Your task to perform on an android device: toggle data saver in the chrome app Image 0: 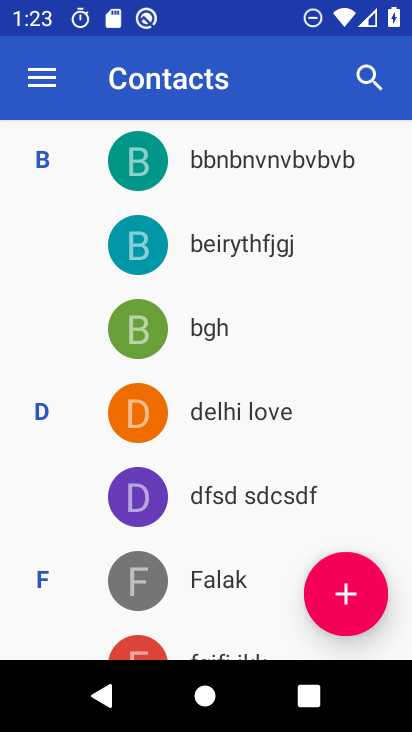
Step 0: press back button
Your task to perform on an android device: toggle data saver in the chrome app Image 1: 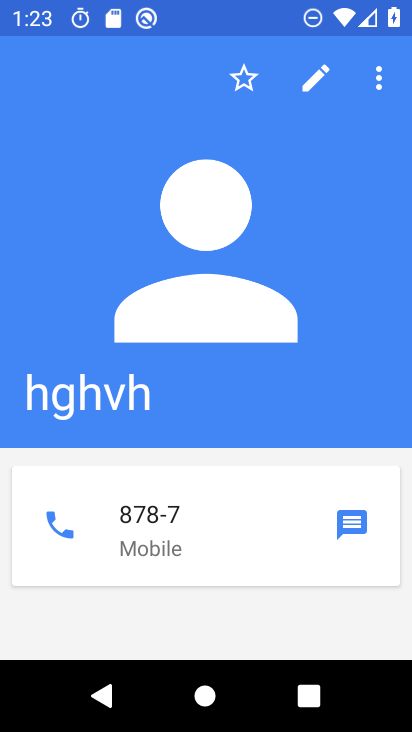
Step 1: press back button
Your task to perform on an android device: toggle data saver in the chrome app Image 2: 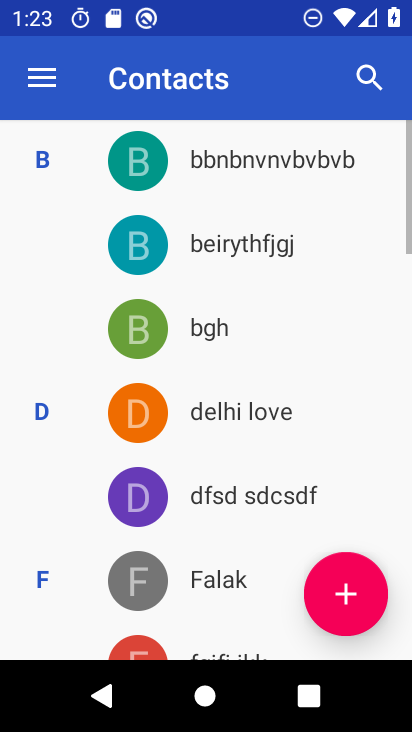
Step 2: press back button
Your task to perform on an android device: toggle data saver in the chrome app Image 3: 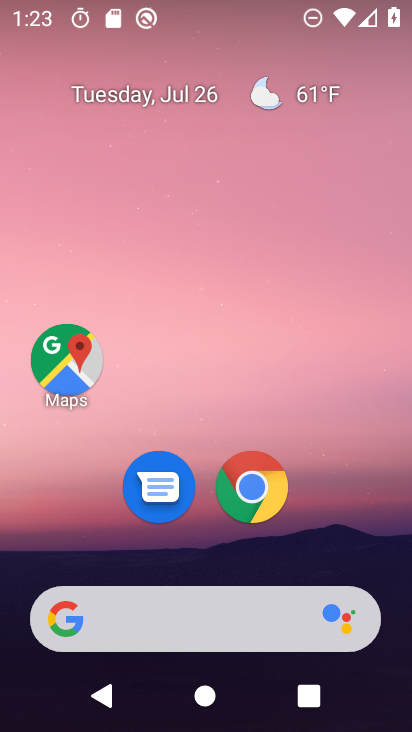
Step 3: click (242, 494)
Your task to perform on an android device: toggle data saver in the chrome app Image 4: 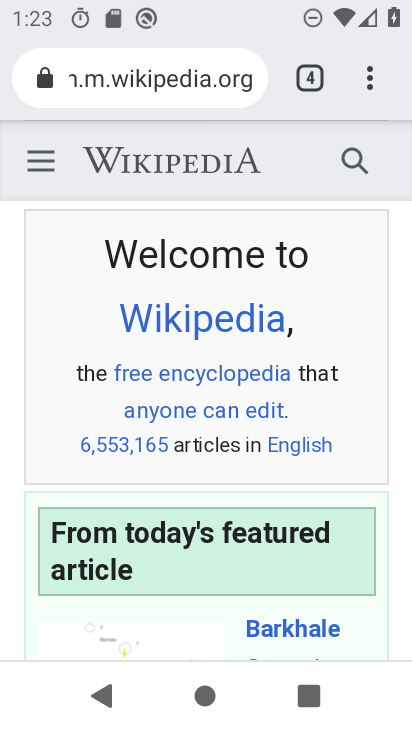
Step 4: drag from (377, 72) to (158, 547)
Your task to perform on an android device: toggle data saver in the chrome app Image 5: 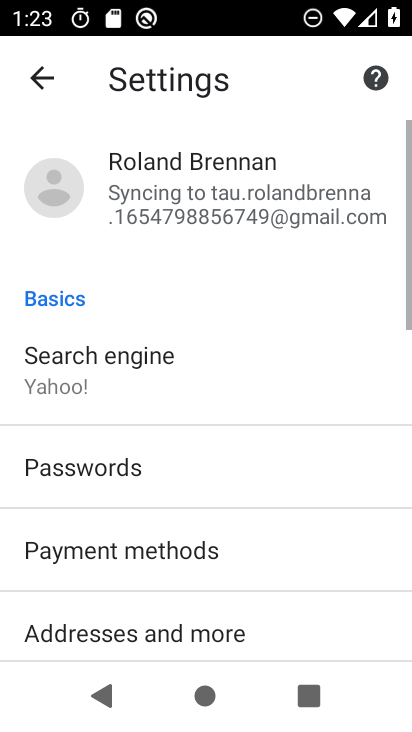
Step 5: drag from (159, 520) to (220, 10)
Your task to perform on an android device: toggle data saver in the chrome app Image 6: 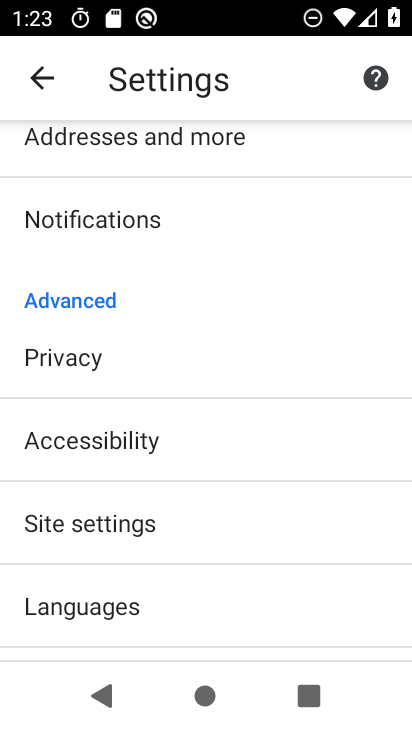
Step 6: drag from (116, 591) to (243, 82)
Your task to perform on an android device: toggle data saver in the chrome app Image 7: 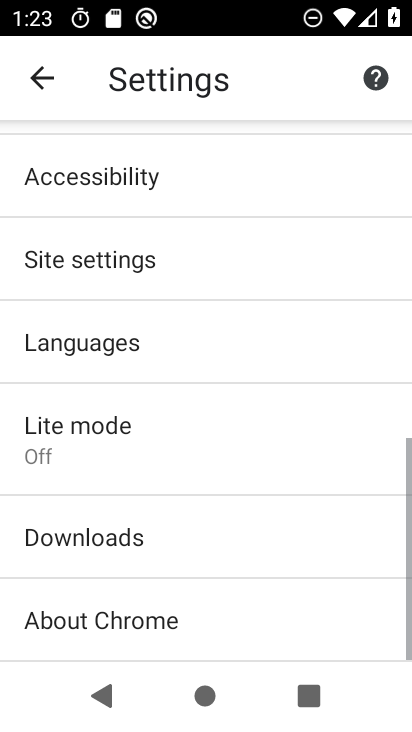
Step 7: click (63, 428)
Your task to perform on an android device: toggle data saver in the chrome app Image 8: 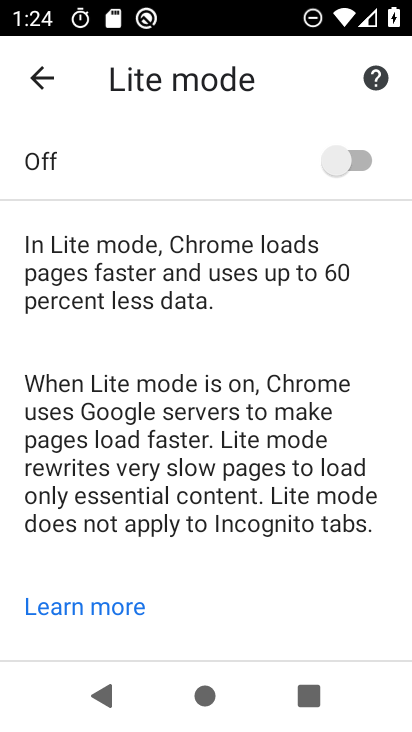
Step 8: click (345, 155)
Your task to perform on an android device: toggle data saver in the chrome app Image 9: 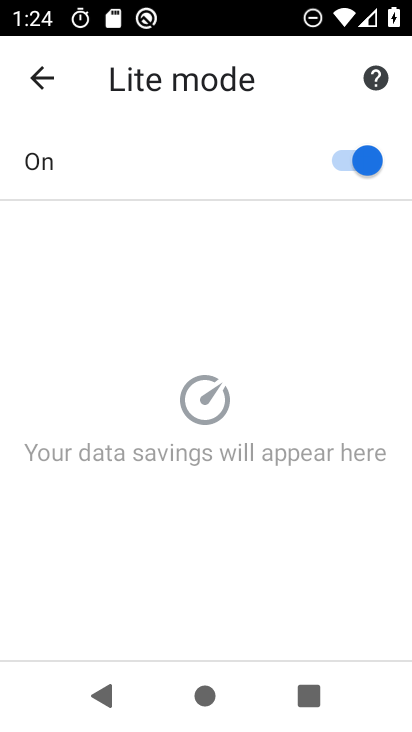
Step 9: task complete